Your task to perform on an android device: turn vacation reply on in the gmail app Image 0: 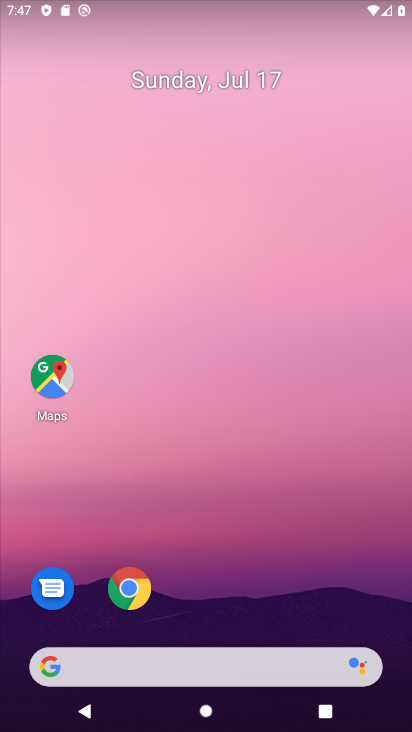
Step 0: drag from (271, 645) to (271, 110)
Your task to perform on an android device: turn vacation reply on in the gmail app Image 1: 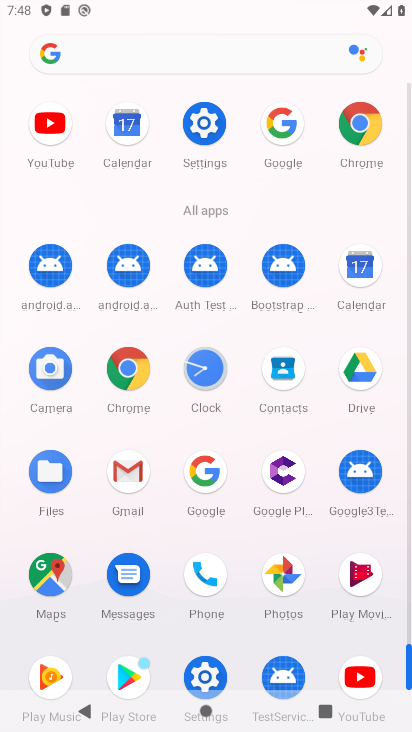
Step 1: click (127, 491)
Your task to perform on an android device: turn vacation reply on in the gmail app Image 2: 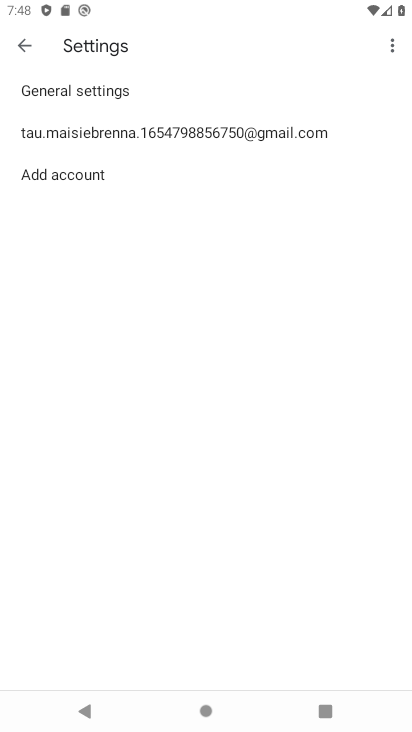
Step 2: click (174, 142)
Your task to perform on an android device: turn vacation reply on in the gmail app Image 3: 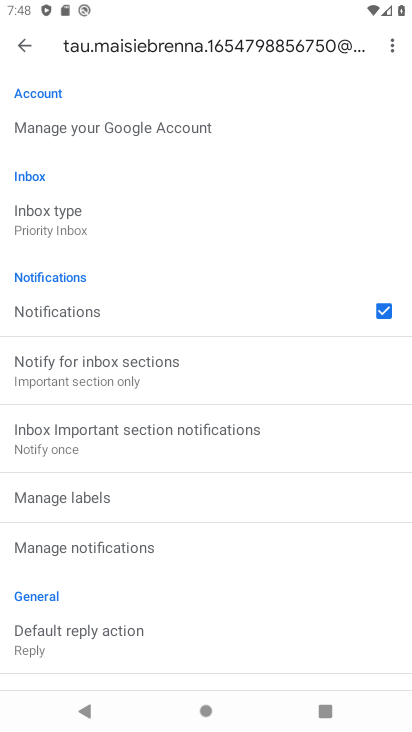
Step 3: drag from (149, 484) to (163, 287)
Your task to perform on an android device: turn vacation reply on in the gmail app Image 4: 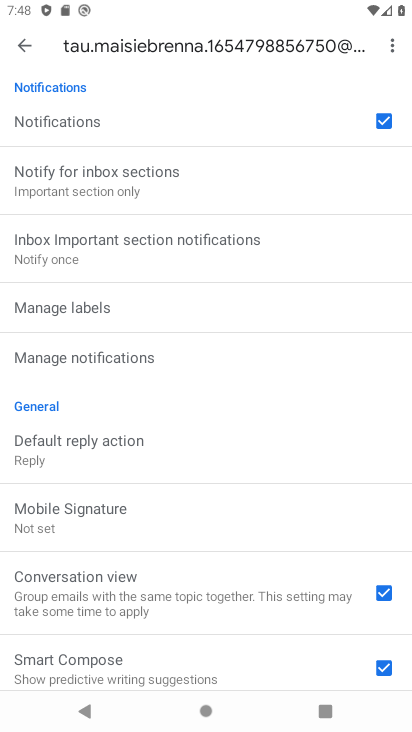
Step 4: drag from (136, 535) to (188, 292)
Your task to perform on an android device: turn vacation reply on in the gmail app Image 5: 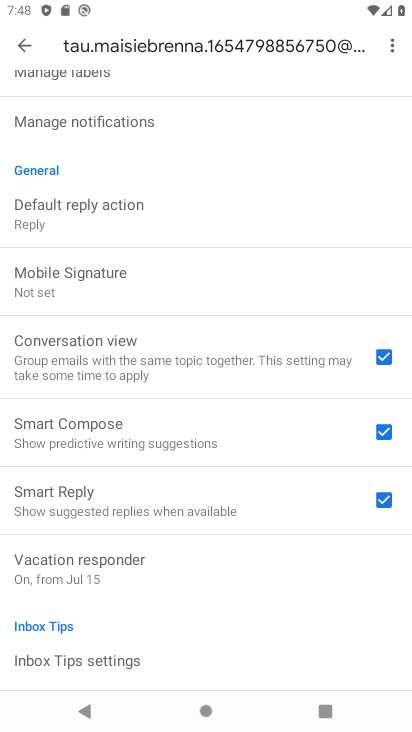
Step 5: click (111, 578)
Your task to perform on an android device: turn vacation reply on in the gmail app Image 6: 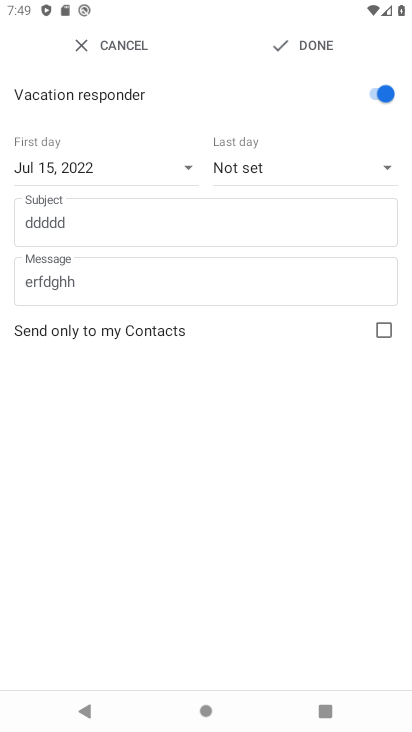
Step 6: task complete